Your task to perform on an android device: Open the calendar app, open the side menu, and click the "Day" option Image 0: 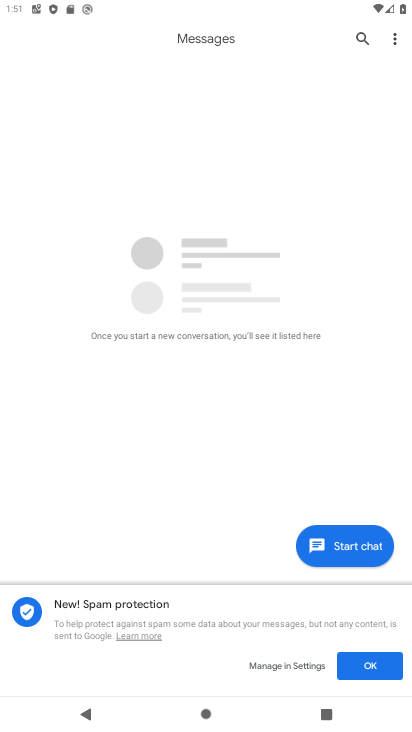
Step 0: press home button
Your task to perform on an android device: Open the calendar app, open the side menu, and click the "Day" option Image 1: 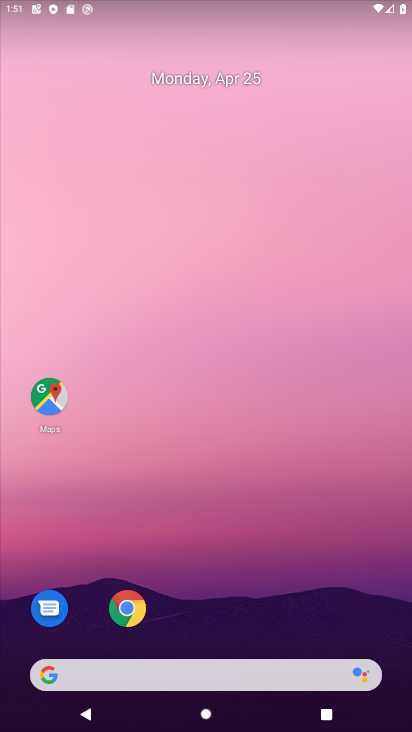
Step 1: drag from (155, 635) to (156, 259)
Your task to perform on an android device: Open the calendar app, open the side menu, and click the "Day" option Image 2: 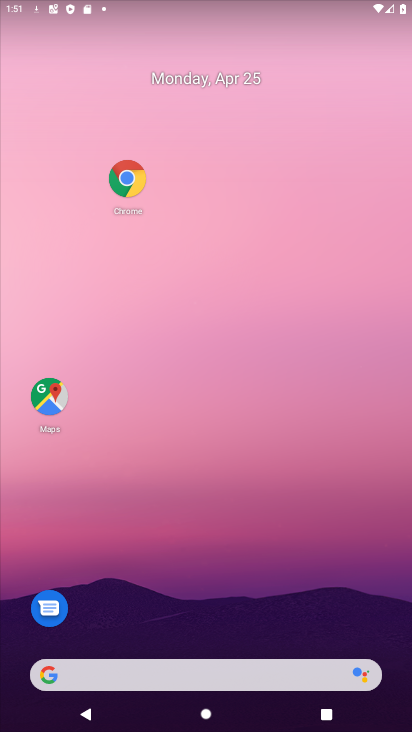
Step 2: drag from (122, 635) to (115, 199)
Your task to perform on an android device: Open the calendar app, open the side menu, and click the "Day" option Image 3: 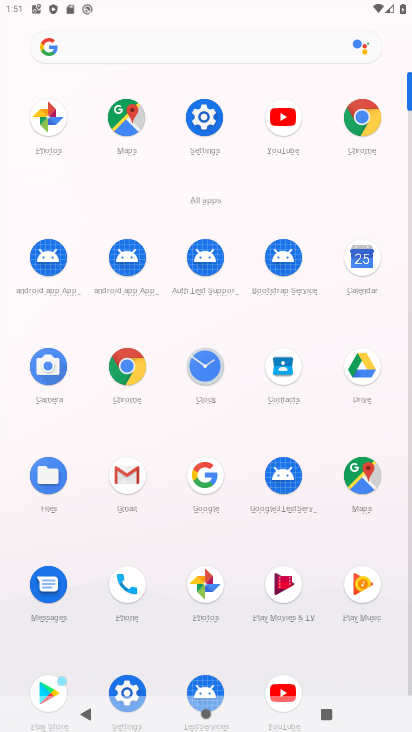
Step 3: click (369, 261)
Your task to perform on an android device: Open the calendar app, open the side menu, and click the "Day" option Image 4: 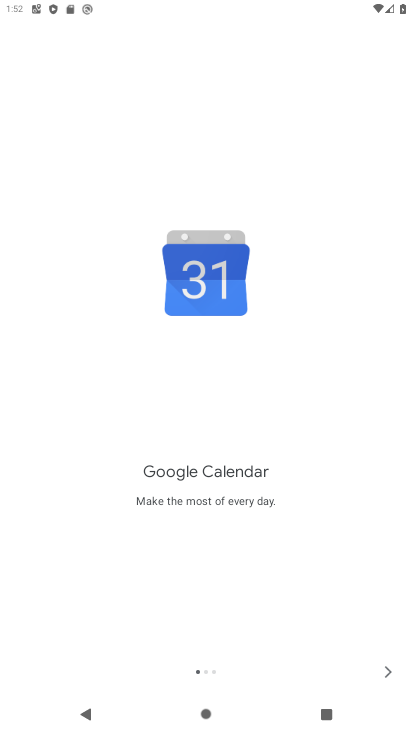
Step 4: click (386, 671)
Your task to perform on an android device: Open the calendar app, open the side menu, and click the "Day" option Image 5: 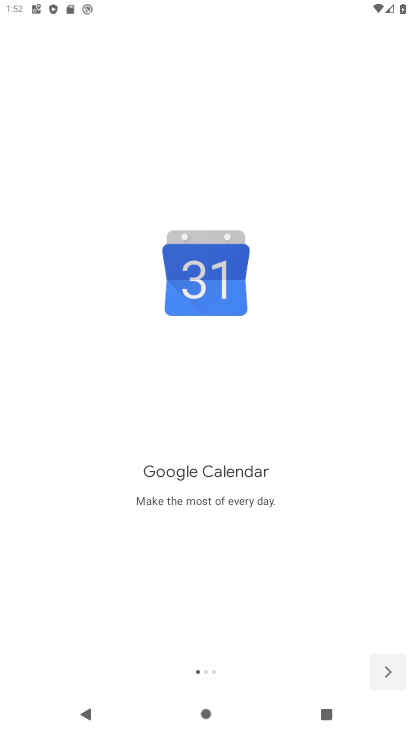
Step 5: click (386, 671)
Your task to perform on an android device: Open the calendar app, open the side menu, and click the "Day" option Image 6: 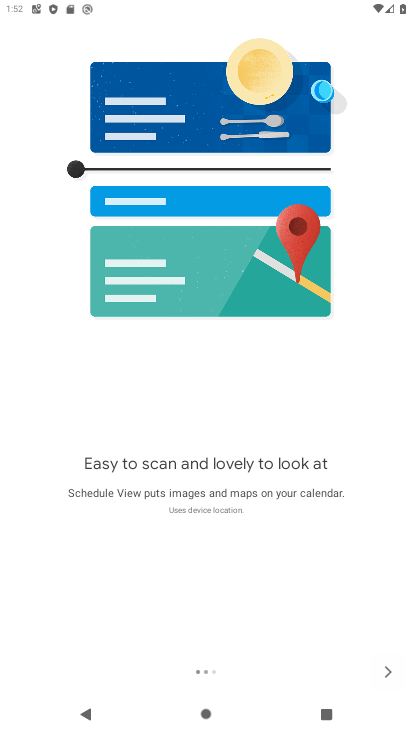
Step 6: click (387, 671)
Your task to perform on an android device: Open the calendar app, open the side menu, and click the "Day" option Image 7: 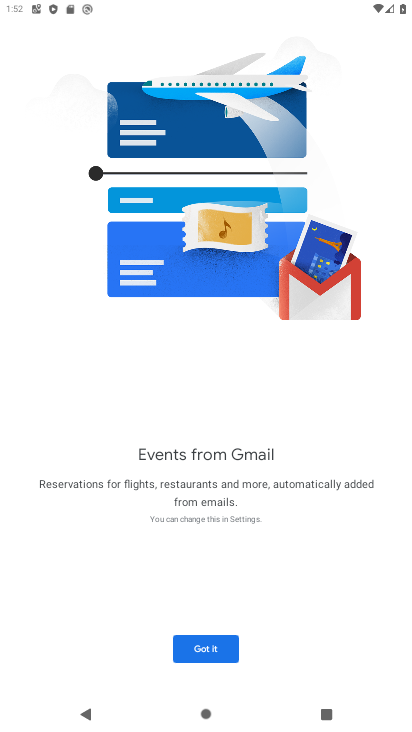
Step 7: click (387, 671)
Your task to perform on an android device: Open the calendar app, open the side menu, and click the "Day" option Image 8: 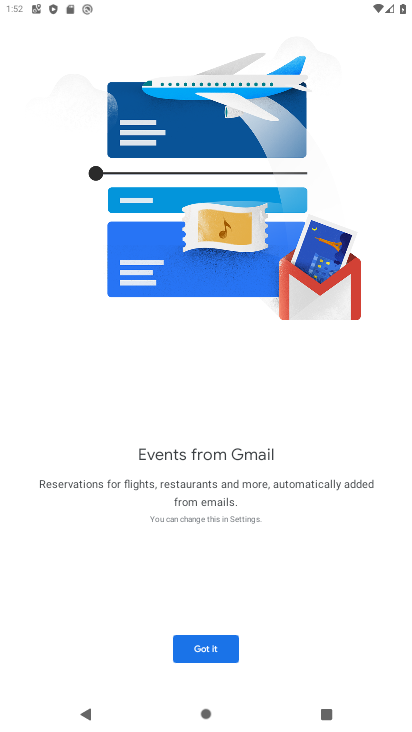
Step 8: click (222, 648)
Your task to perform on an android device: Open the calendar app, open the side menu, and click the "Day" option Image 9: 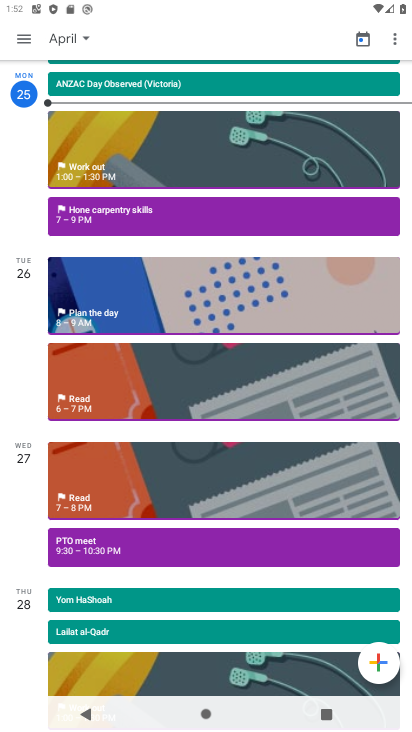
Step 9: click (26, 43)
Your task to perform on an android device: Open the calendar app, open the side menu, and click the "Day" option Image 10: 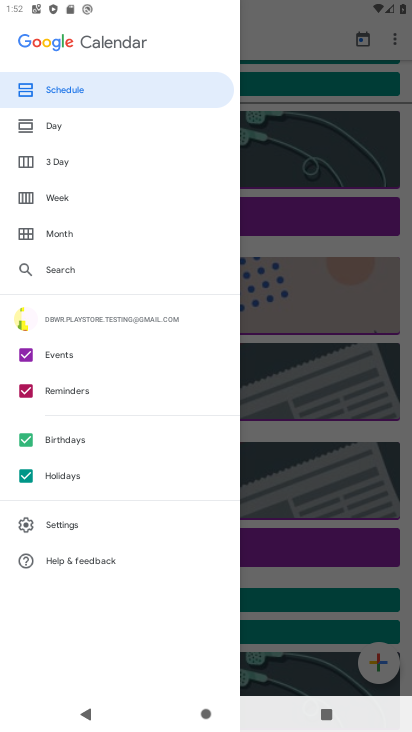
Step 10: click (61, 121)
Your task to perform on an android device: Open the calendar app, open the side menu, and click the "Day" option Image 11: 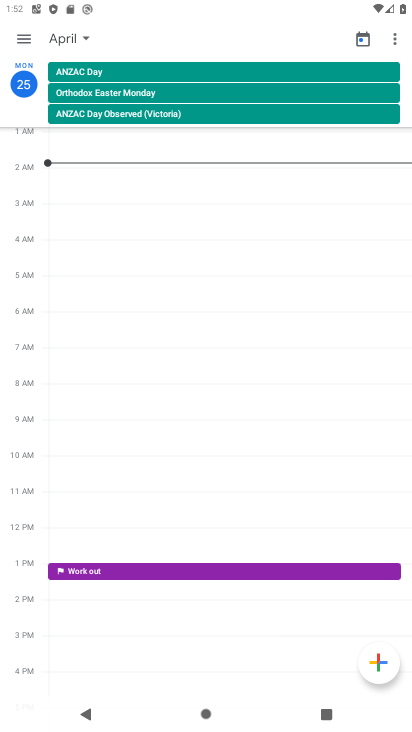
Step 11: task complete